Your task to perform on an android device: open app "Life360: Find Family & Friends" (install if not already installed) and enter user name: "gusts@gmail.com" and password: "assurers" Image 0: 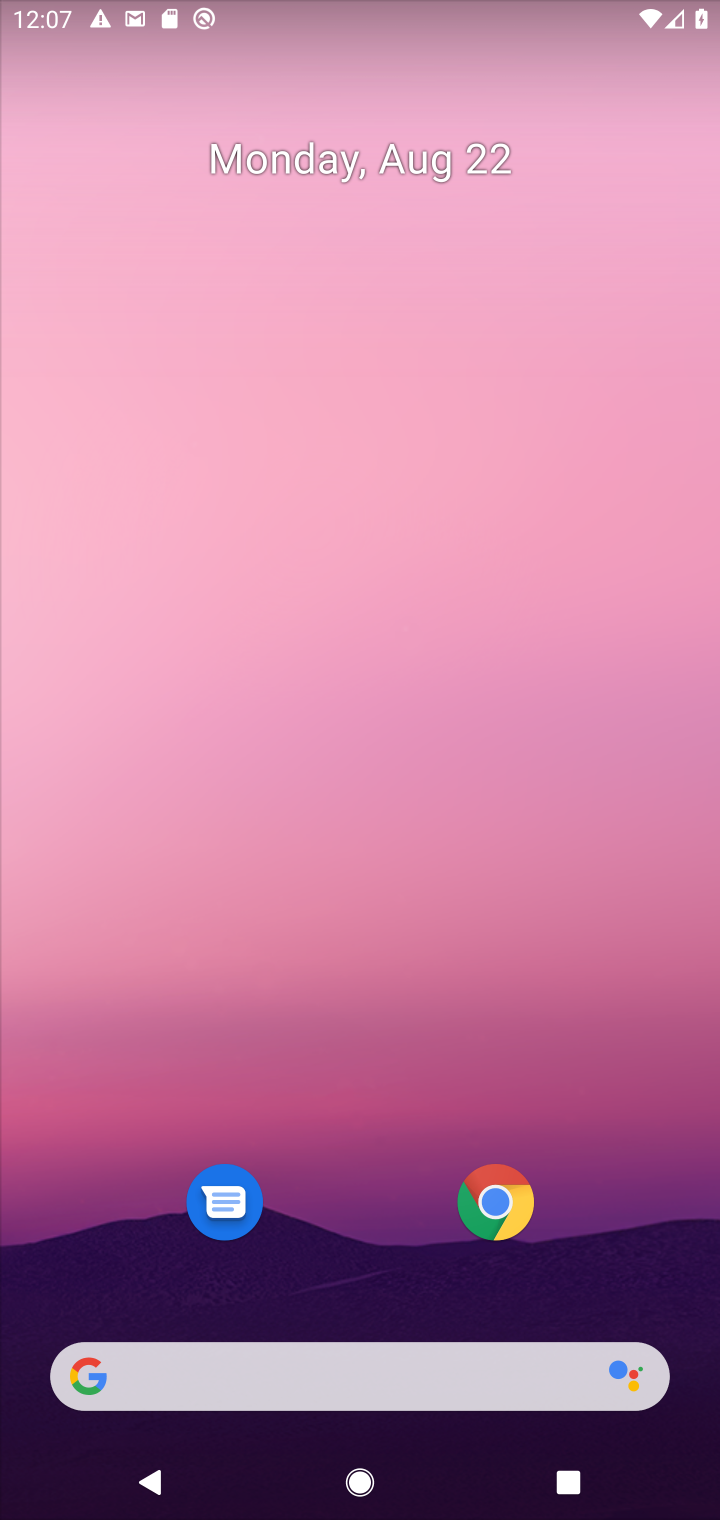
Step 0: drag from (400, 1304) to (402, 147)
Your task to perform on an android device: open app "Life360: Find Family & Friends" (install if not already installed) and enter user name: "gusts@gmail.com" and password: "assurers" Image 1: 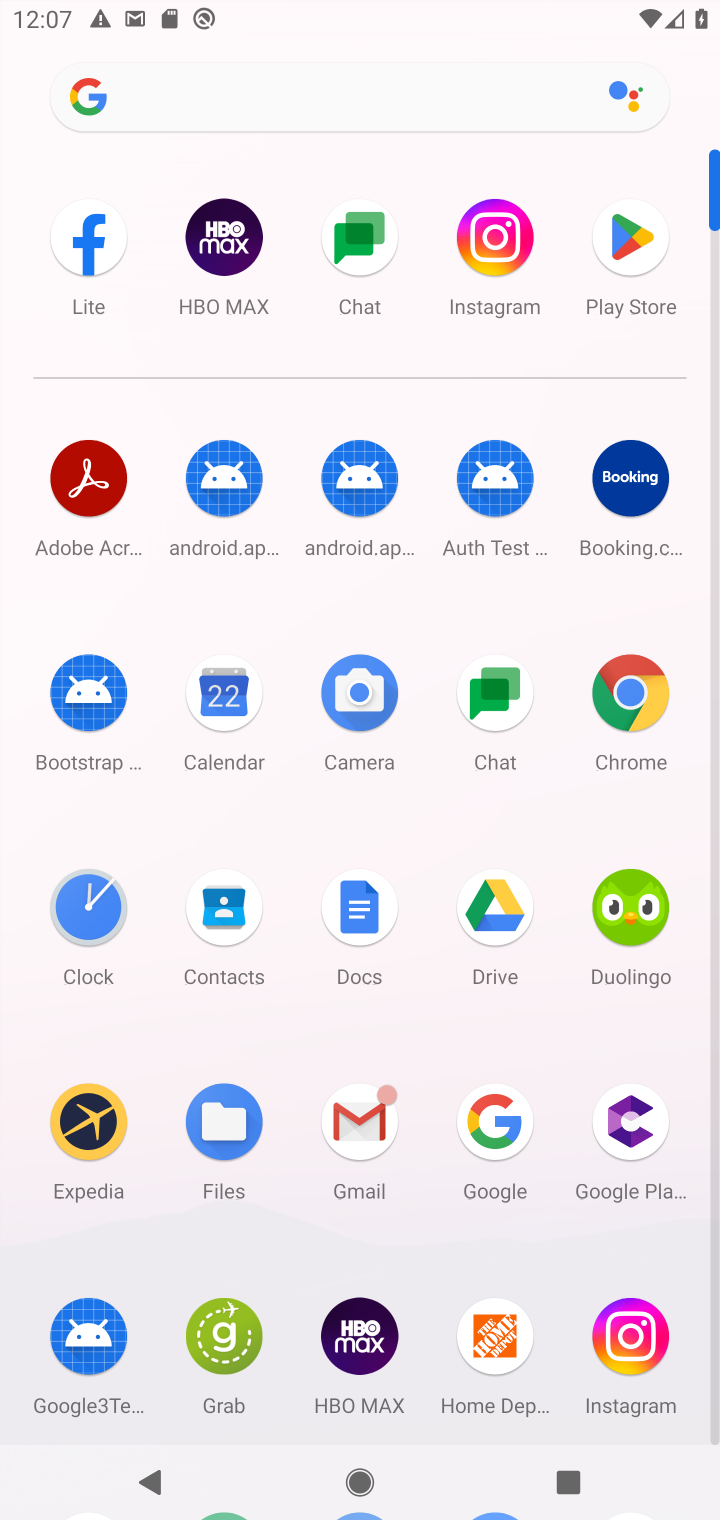
Step 1: click (616, 240)
Your task to perform on an android device: open app "Life360: Find Family & Friends" (install if not already installed) and enter user name: "gusts@gmail.com" and password: "assurers" Image 2: 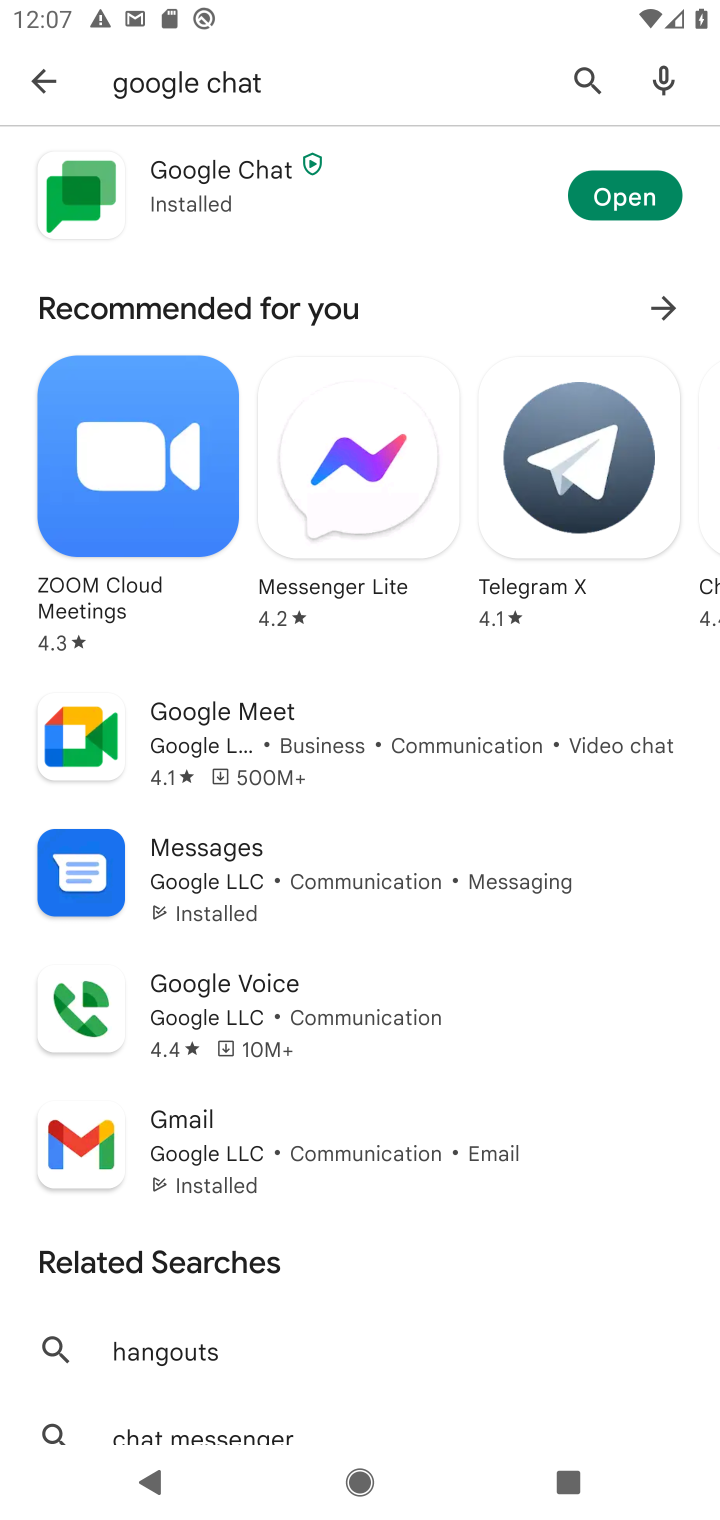
Step 2: click (583, 76)
Your task to perform on an android device: open app "Life360: Find Family & Friends" (install if not already installed) and enter user name: "gusts@gmail.com" and password: "assurers" Image 3: 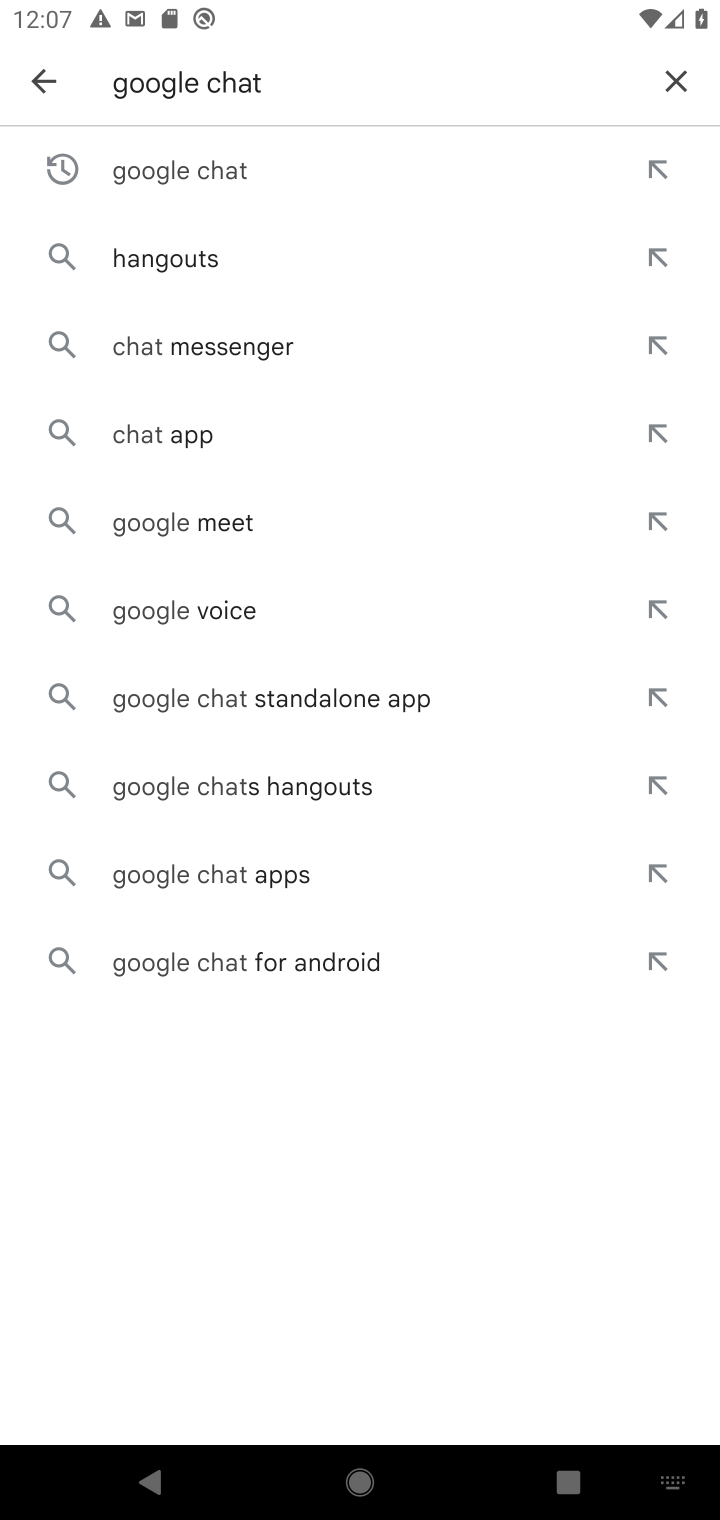
Step 3: click (676, 79)
Your task to perform on an android device: open app "Life360: Find Family & Friends" (install if not already installed) and enter user name: "gusts@gmail.com" and password: "assurers" Image 4: 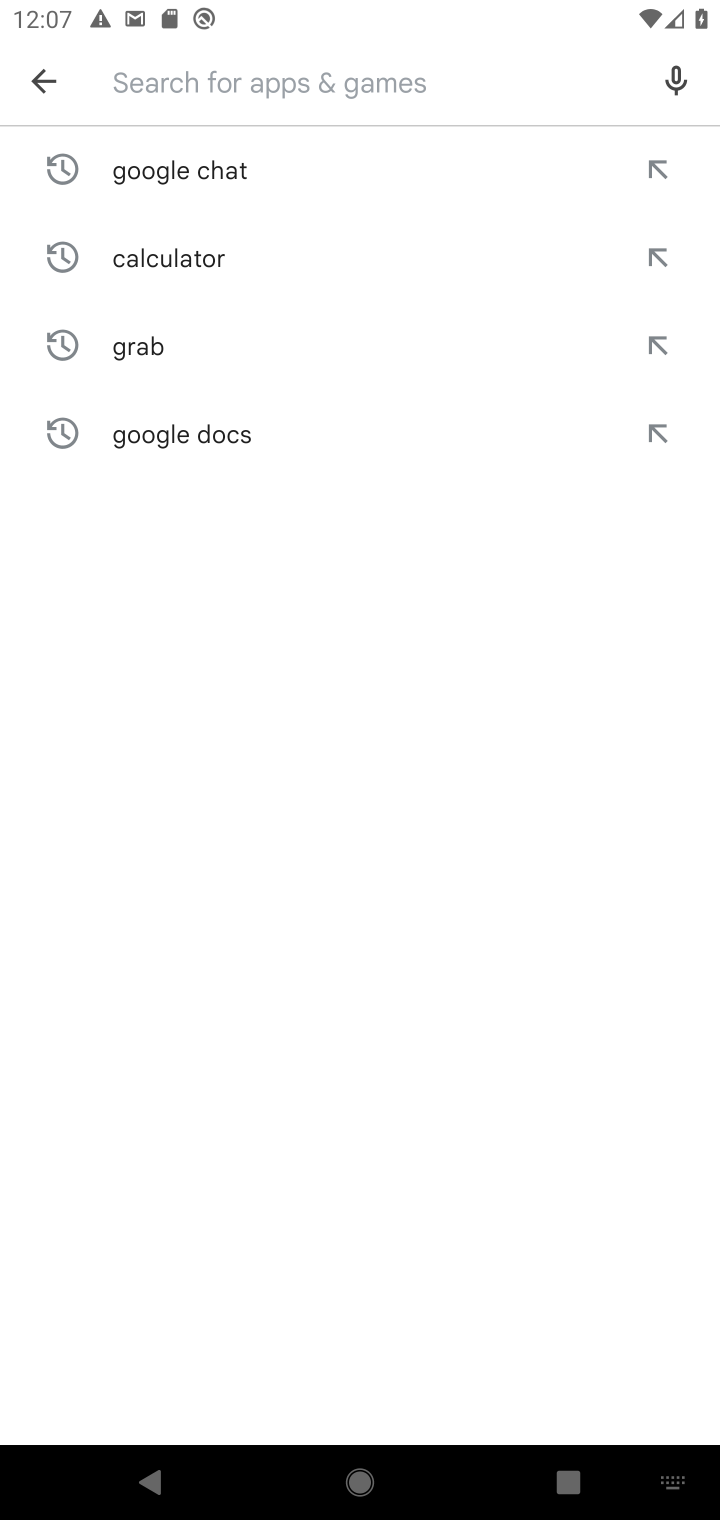
Step 4: type "Life360: Find Family & Friends"
Your task to perform on an android device: open app "Life360: Find Family & Friends" (install if not already installed) and enter user name: "gusts@gmail.com" and password: "assurers" Image 5: 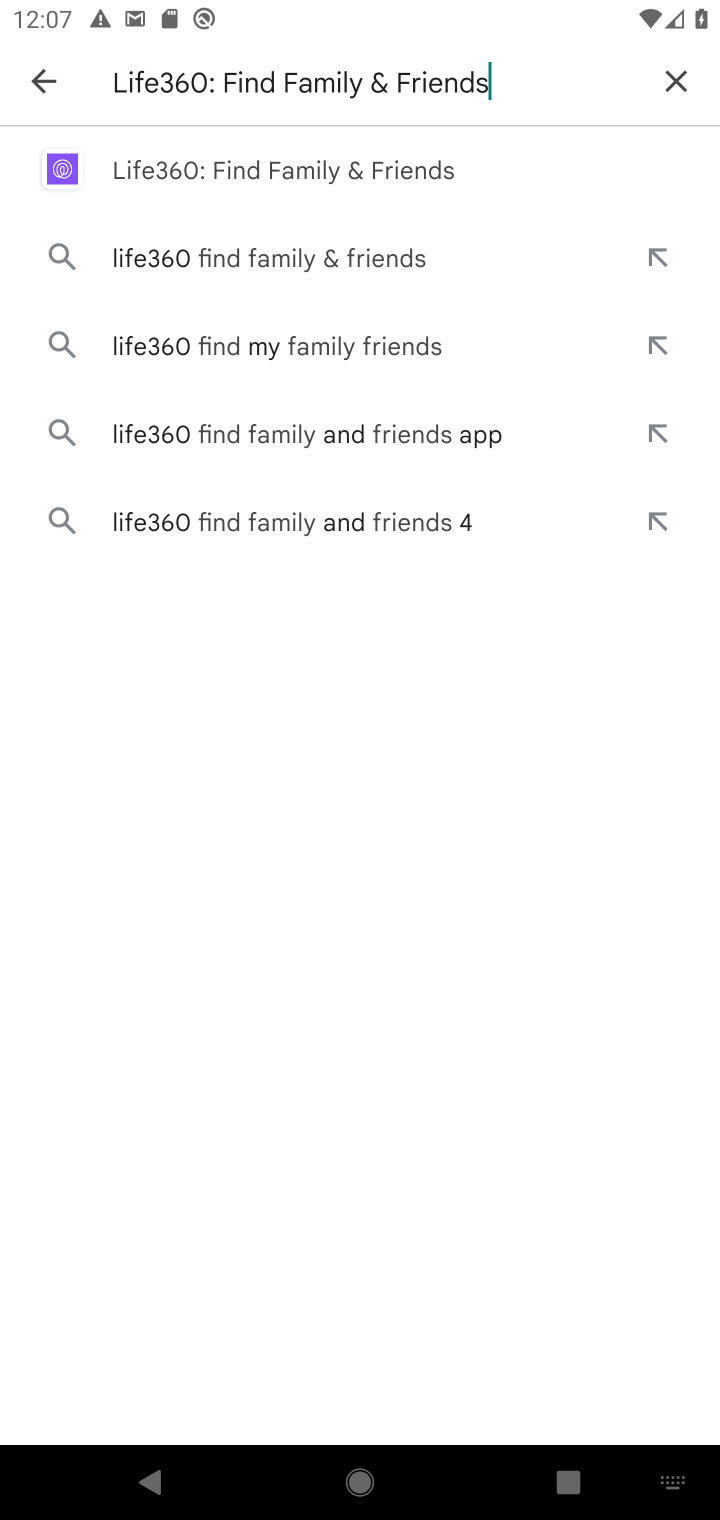
Step 5: click (361, 165)
Your task to perform on an android device: open app "Life360: Find Family & Friends" (install if not already installed) and enter user name: "gusts@gmail.com" and password: "assurers" Image 6: 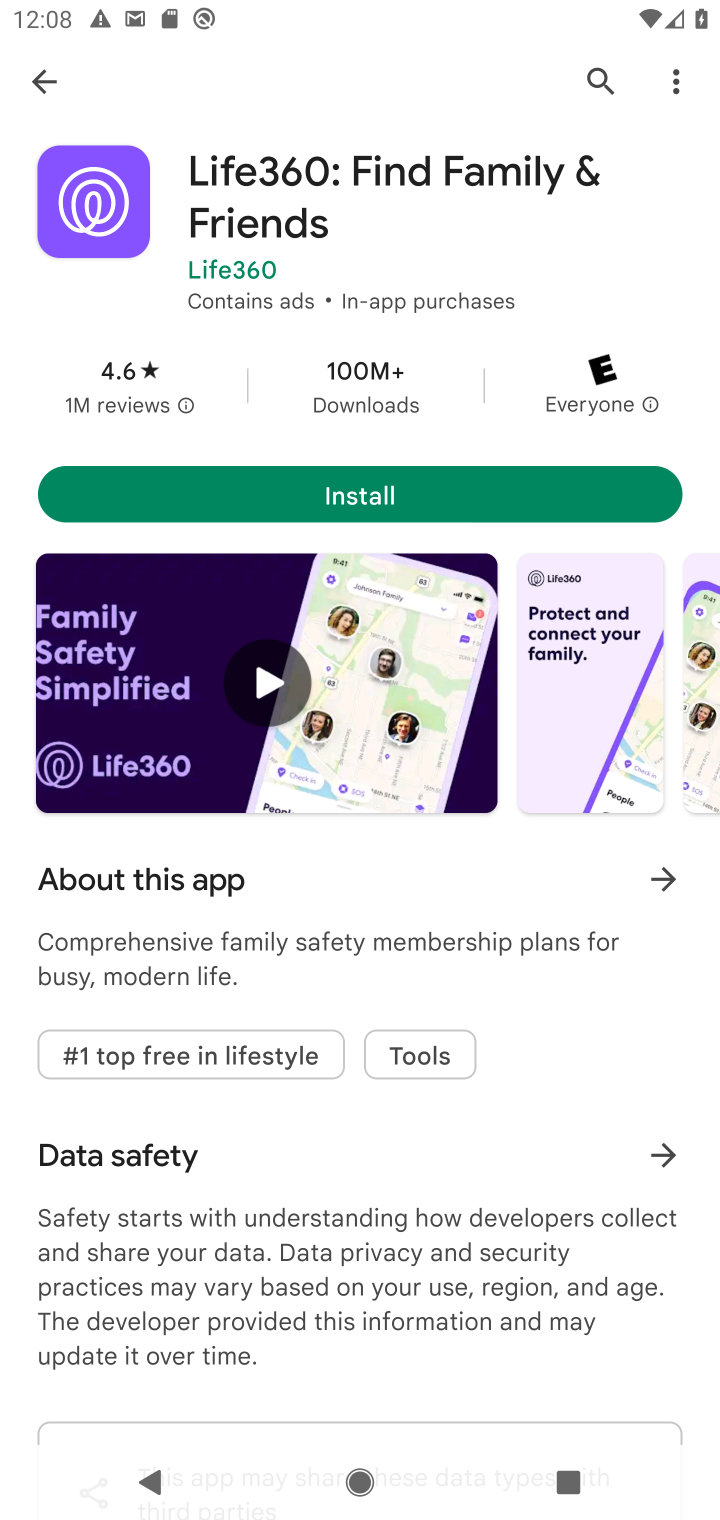
Step 6: click (367, 499)
Your task to perform on an android device: open app "Life360: Find Family & Friends" (install if not already installed) and enter user name: "gusts@gmail.com" and password: "assurers" Image 7: 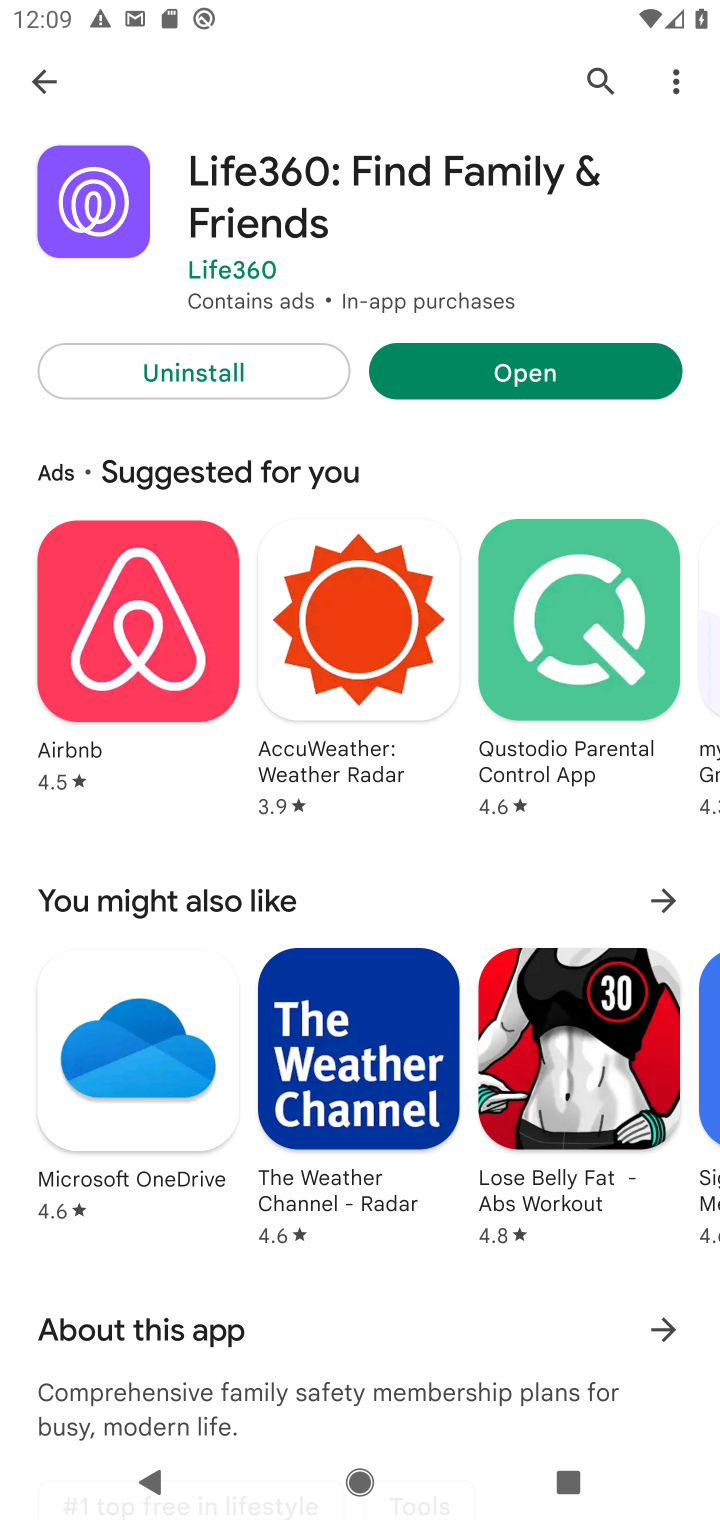
Step 7: click (534, 380)
Your task to perform on an android device: open app "Life360: Find Family & Friends" (install if not already installed) and enter user name: "gusts@gmail.com" and password: "assurers" Image 8: 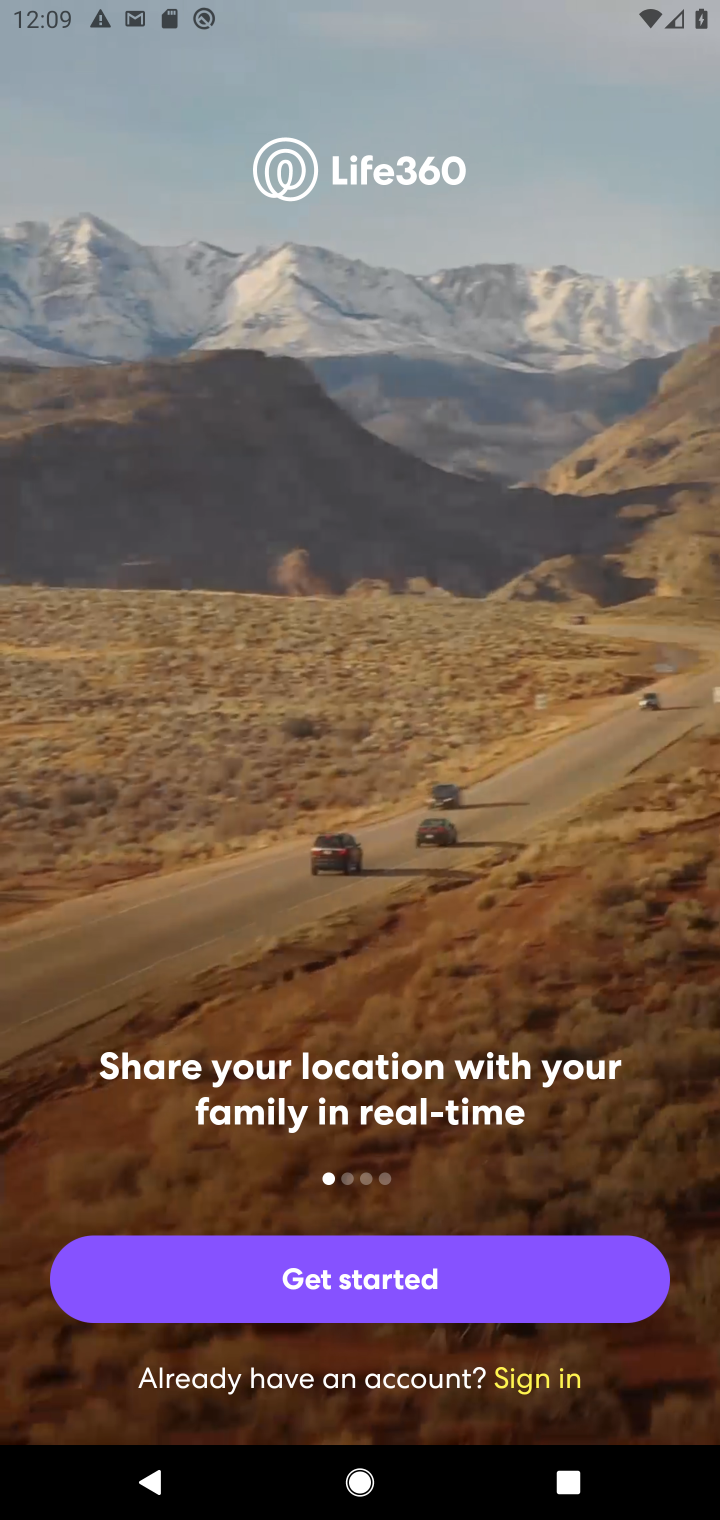
Step 8: click (534, 1387)
Your task to perform on an android device: open app "Life360: Find Family & Friends" (install if not already installed) and enter user name: "gusts@gmail.com" and password: "assurers" Image 9: 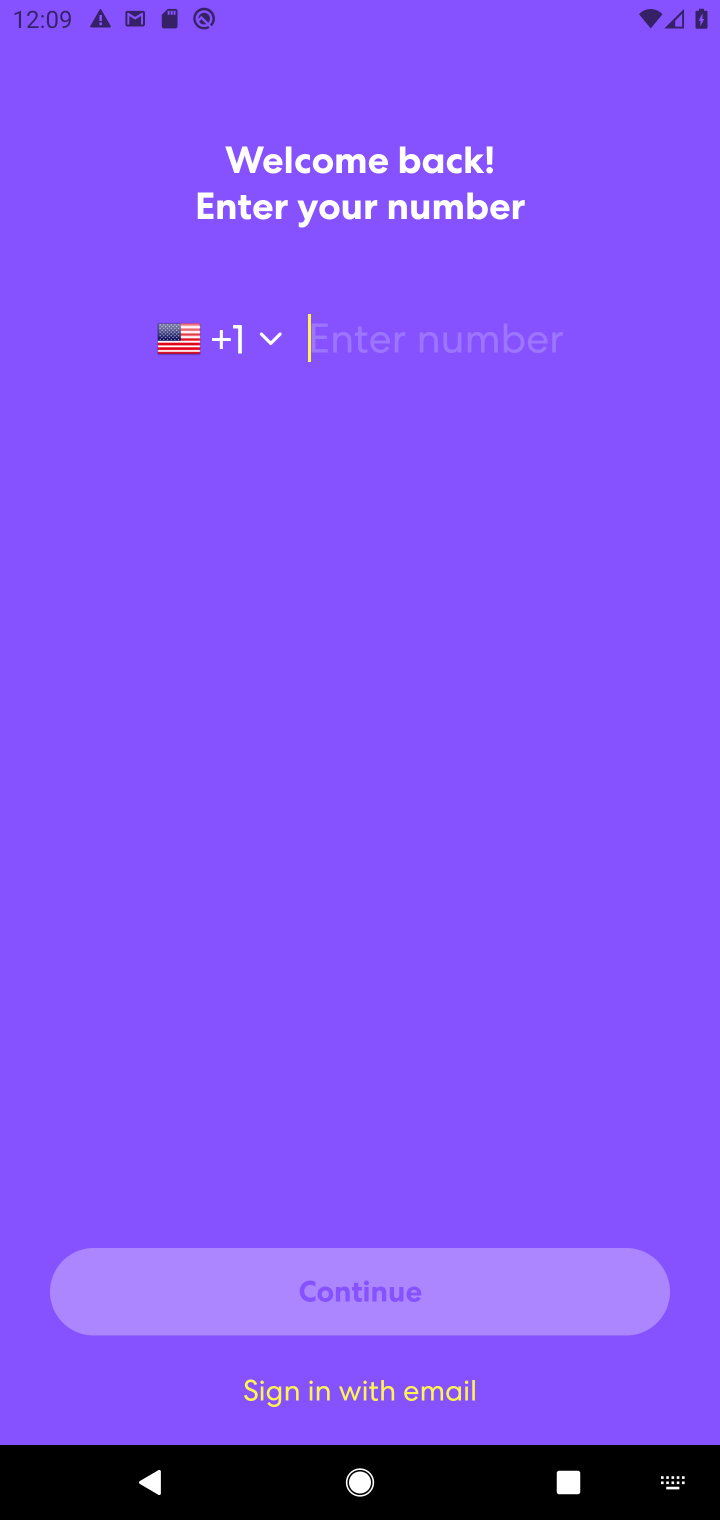
Step 9: click (377, 1398)
Your task to perform on an android device: open app "Life360: Find Family & Friends" (install if not already installed) and enter user name: "gusts@gmail.com" and password: "assurers" Image 10: 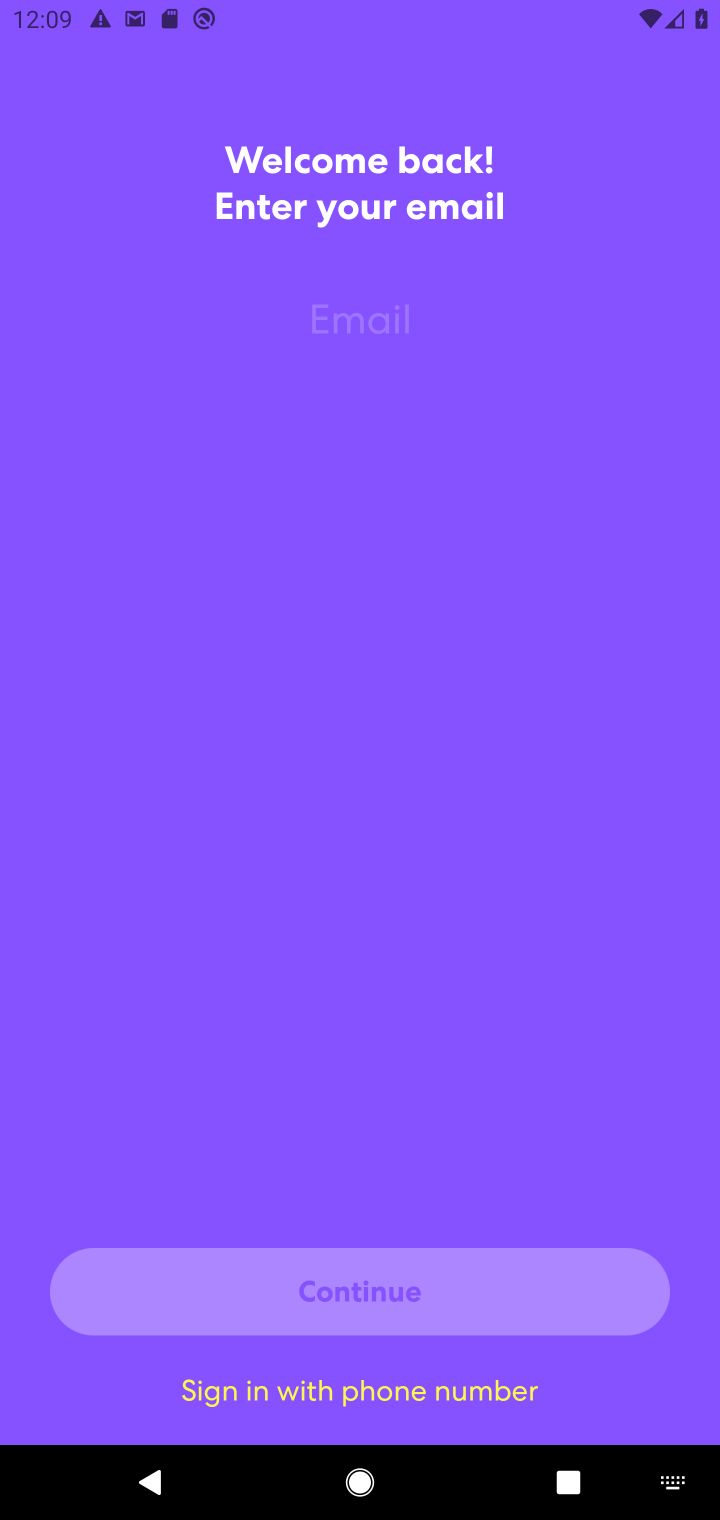
Step 10: type "gusts@gmail.com"
Your task to perform on an android device: open app "Life360: Find Family & Friends" (install if not already installed) and enter user name: "gusts@gmail.com" and password: "assurers" Image 11: 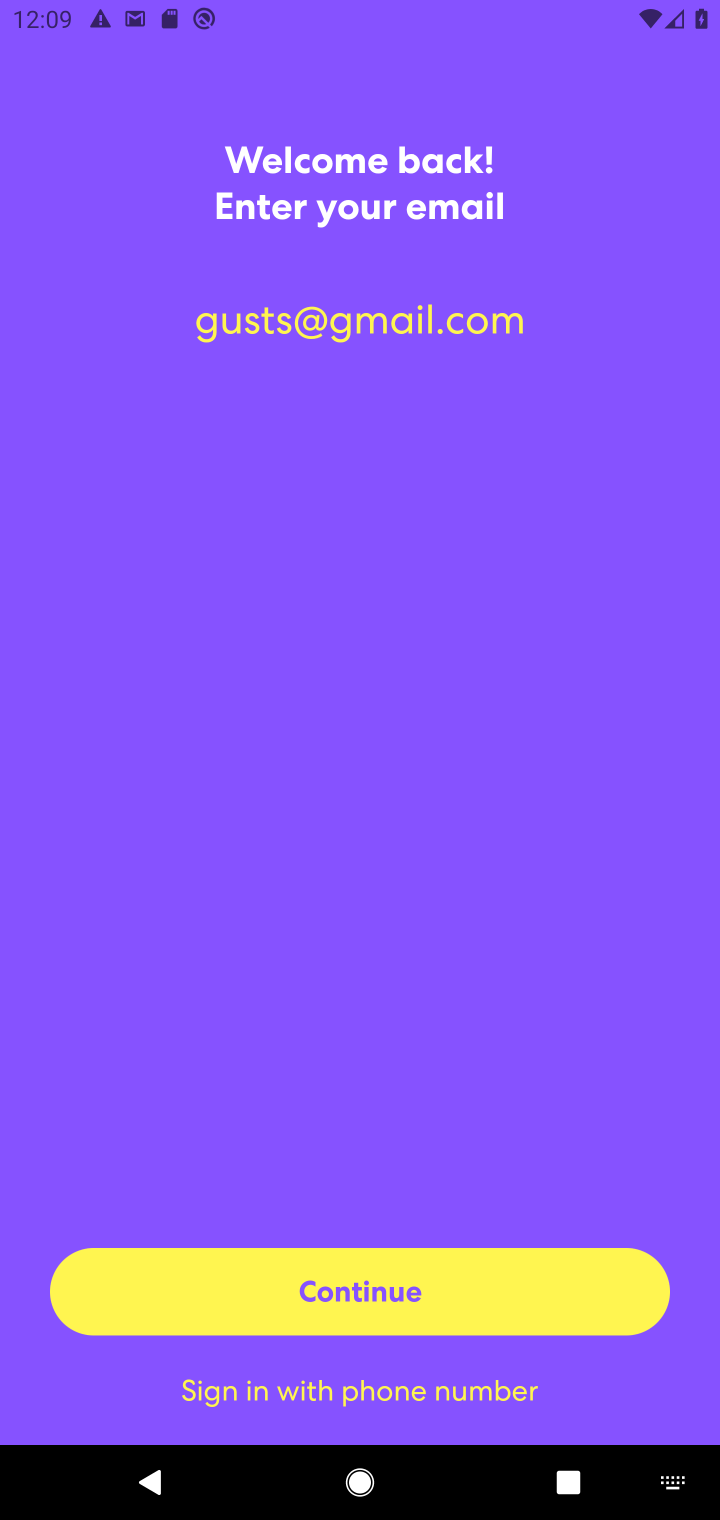
Step 11: click (393, 1290)
Your task to perform on an android device: open app "Life360: Find Family & Friends" (install if not already installed) and enter user name: "gusts@gmail.com" and password: "assurers" Image 12: 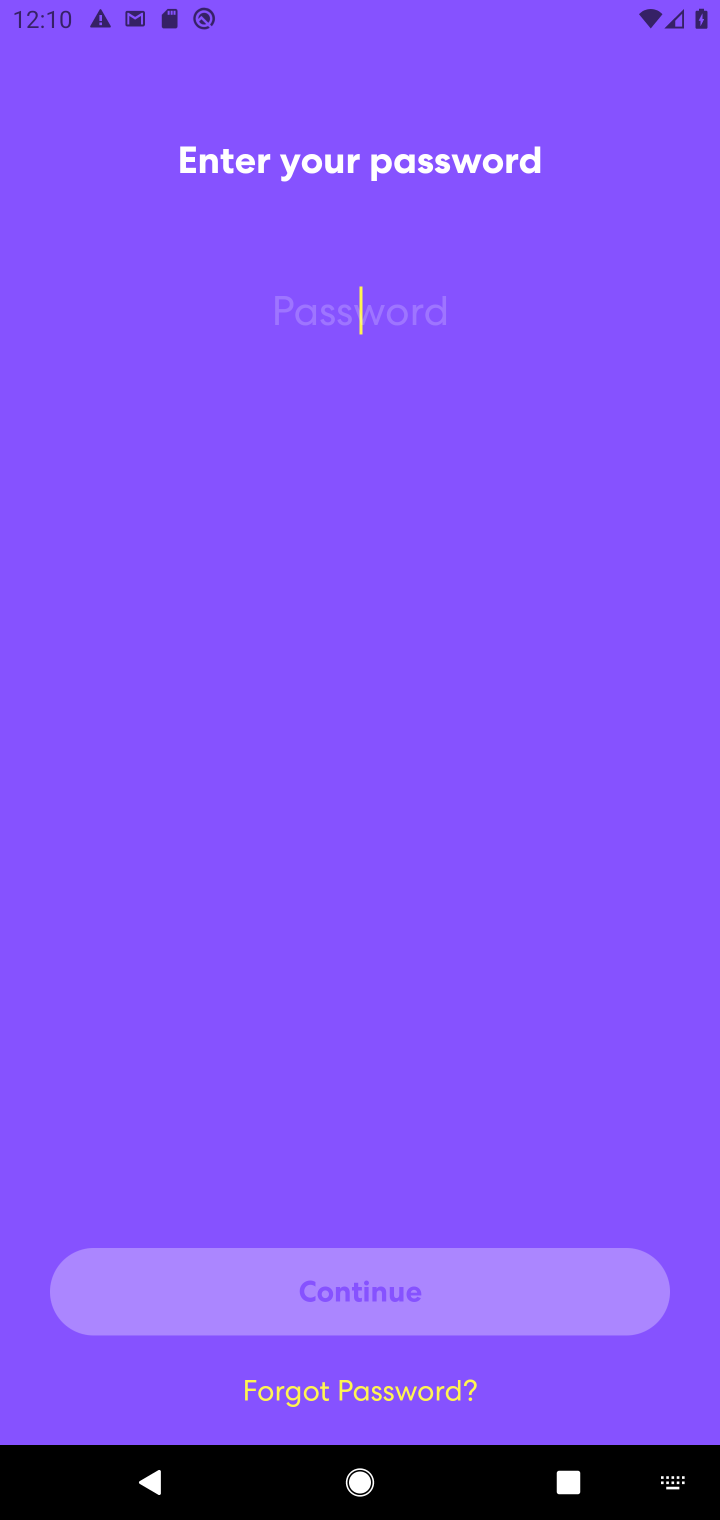
Step 12: type "assurers"
Your task to perform on an android device: open app "Life360: Find Family & Friends" (install if not already installed) and enter user name: "gusts@gmail.com" and password: "assurers" Image 13: 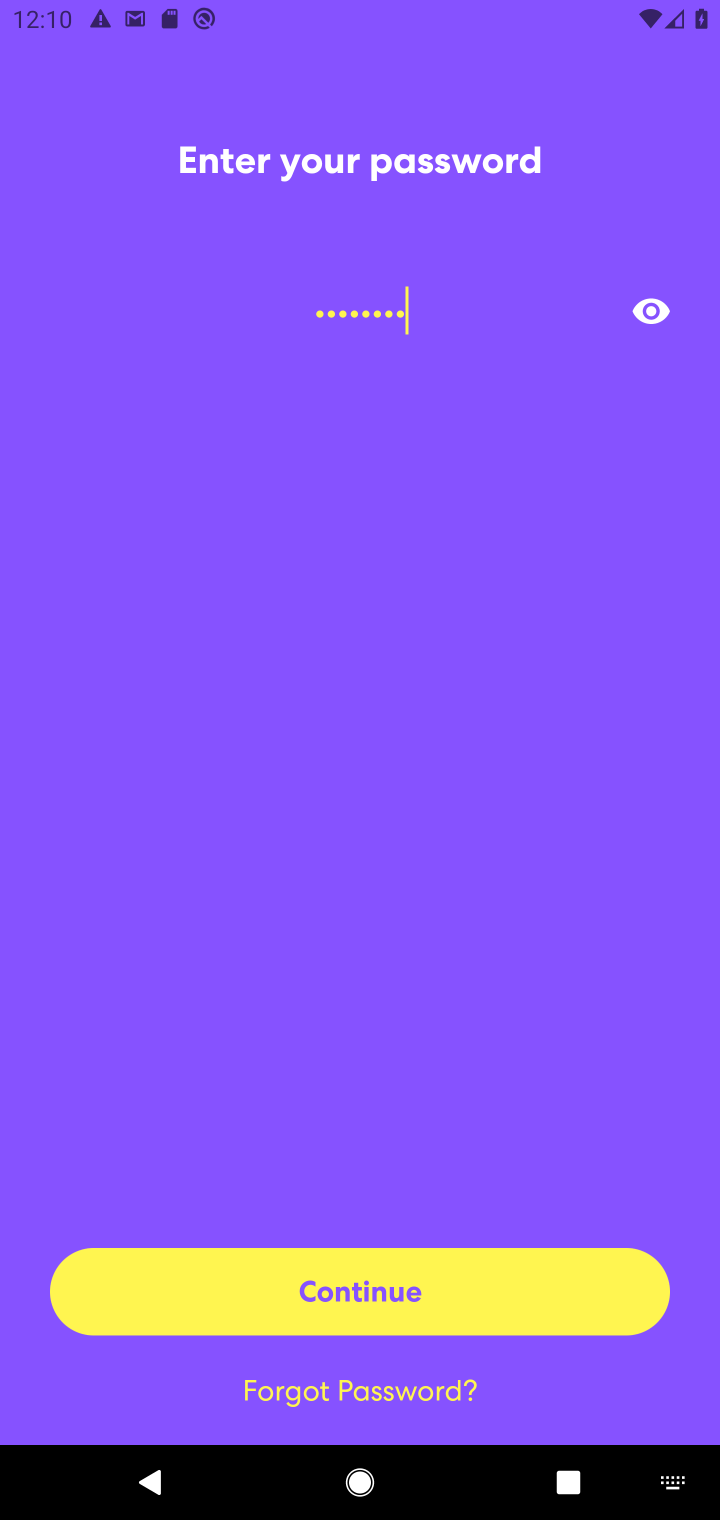
Step 13: task complete